Your task to perform on an android device: allow cookies in the chrome app Image 0: 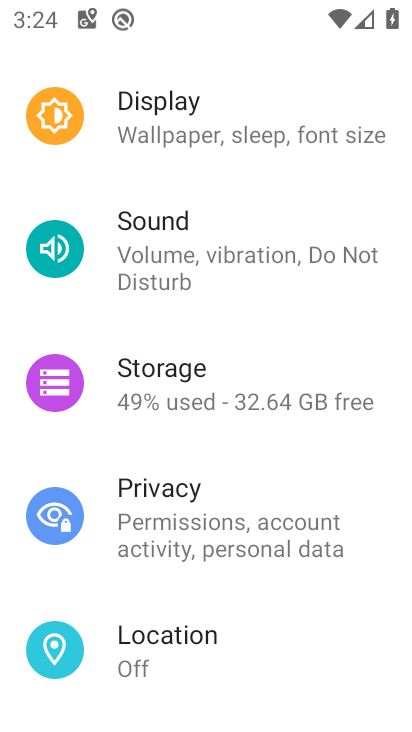
Step 0: press home button
Your task to perform on an android device: allow cookies in the chrome app Image 1: 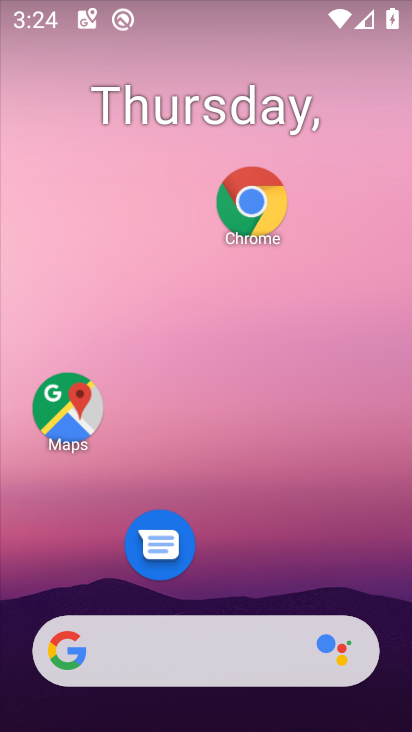
Step 1: drag from (205, 577) to (202, 185)
Your task to perform on an android device: allow cookies in the chrome app Image 2: 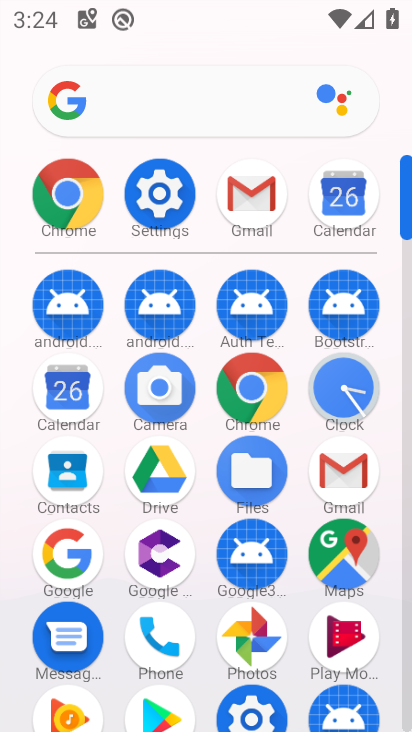
Step 2: click (74, 196)
Your task to perform on an android device: allow cookies in the chrome app Image 3: 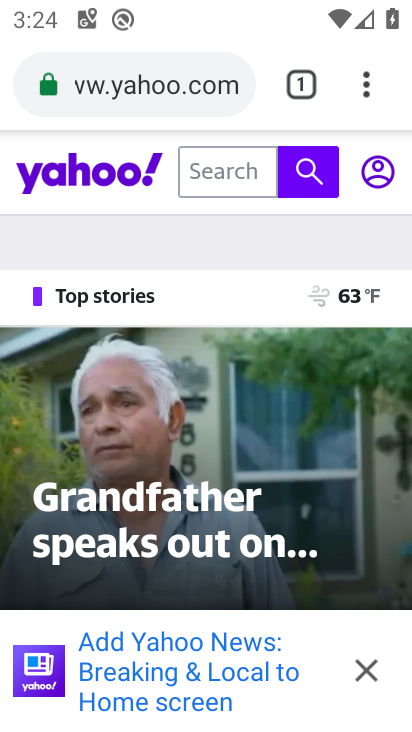
Step 3: click (357, 84)
Your task to perform on an android device: allow cookies in the chrome app Image 4: 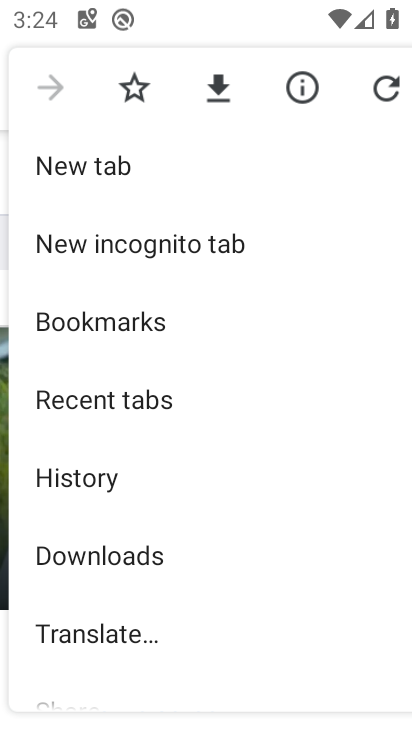
Step 4: drag from (122, 661) to (122, 258)
Your task to perform on an android device: allow cookies in the chrome app Image 5: 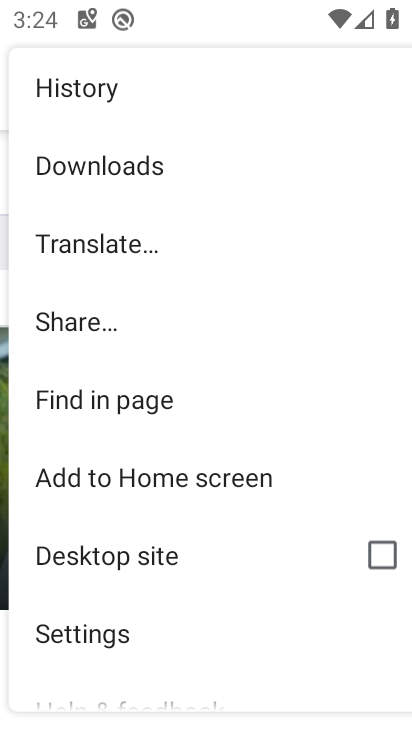
Step 5: click (79, 641)
Your task to perform on an android device: allow cookies in the chrome app Image 6: 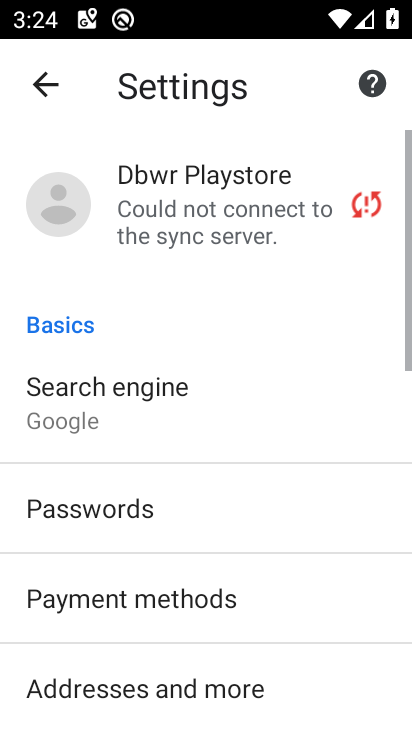
Step 6: drag from (104, 692) to (104, 313)
Your task to perform on an android device: allow cookies in the chrome app Image 7: 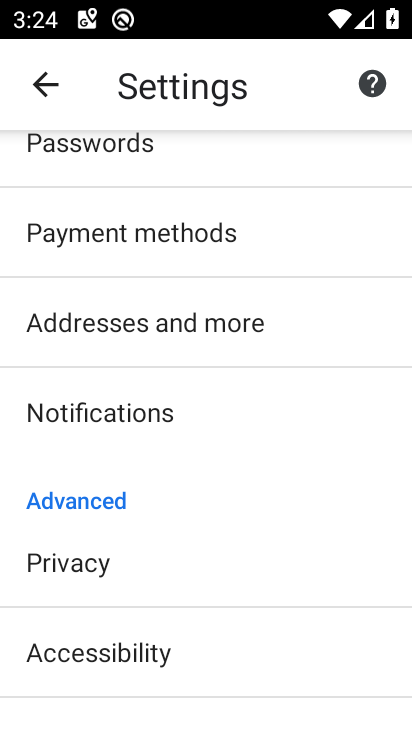
Step 7: drag from (70, 696) to (109, 376)
Your task to perform on an android device: allow cookies in the chrome app Image 8: 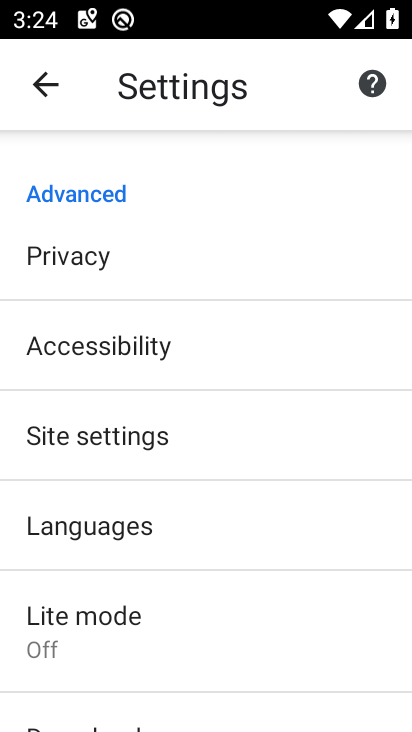
Step 8: click (98, 429)
Your task to perform on an android device: allow cookies in the chrome app Image 9: 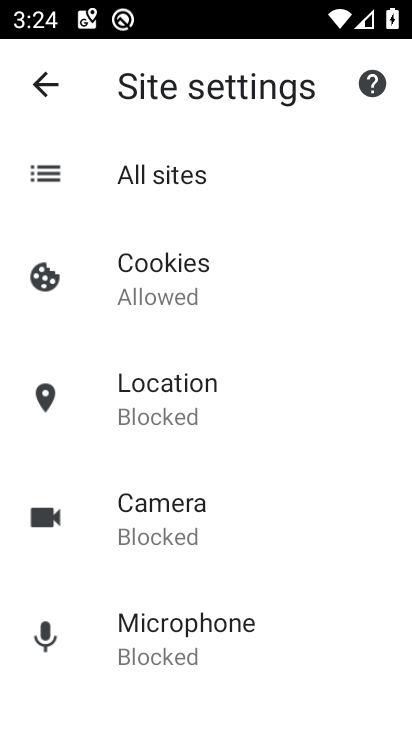
Step 9: click (181, 273)
Your task to perform on an android device: allow cookies in the chrome app Image 10: 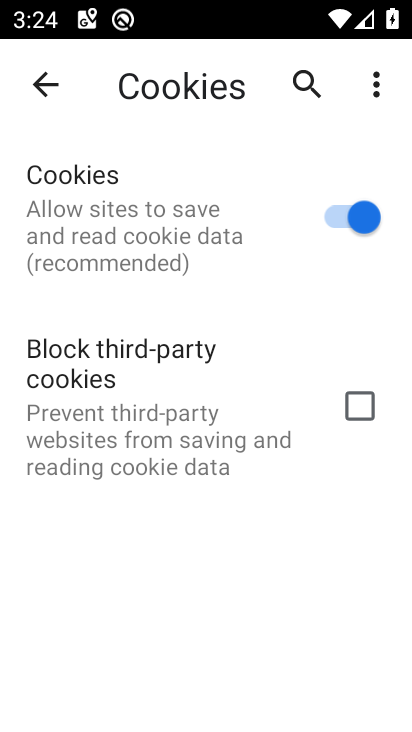
Step 10: task complete